Your task to perform on an android device: Open wifi settings Image 0: 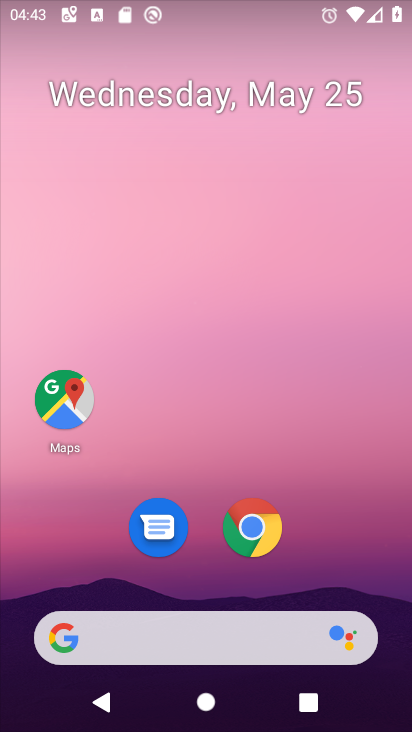
Step 0: drag from (212, 460) to (237, 3)
Your task to perform on an android device: Open wifi settings Image 1: 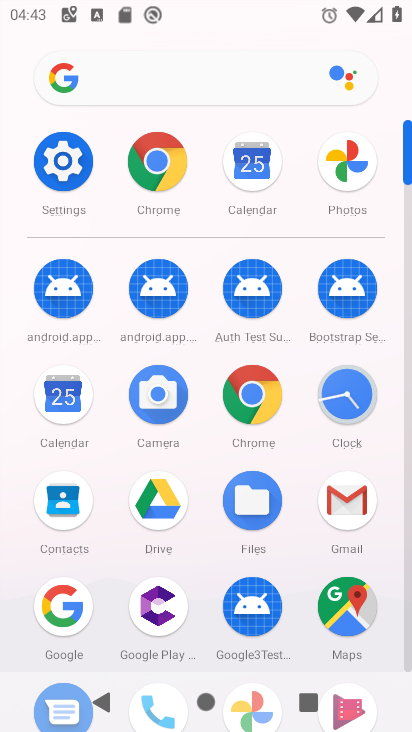
Step 1: click (76, 169)
Your task to perform on an android device: Open wifi settings Image 2: 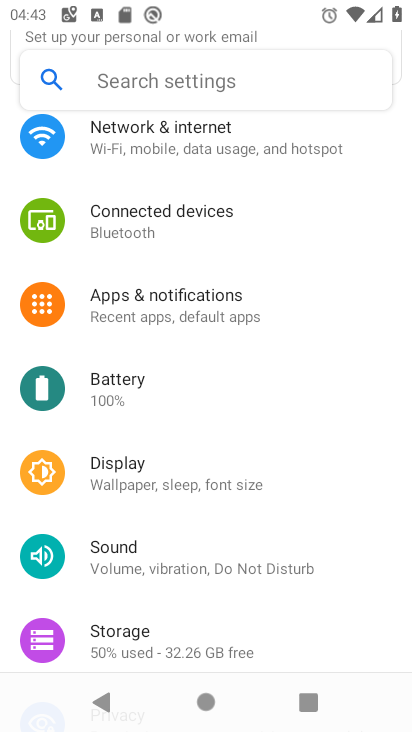
Step 2: click (199, 146)
Your task to perform on an android device: Open wifi settings Image 3: 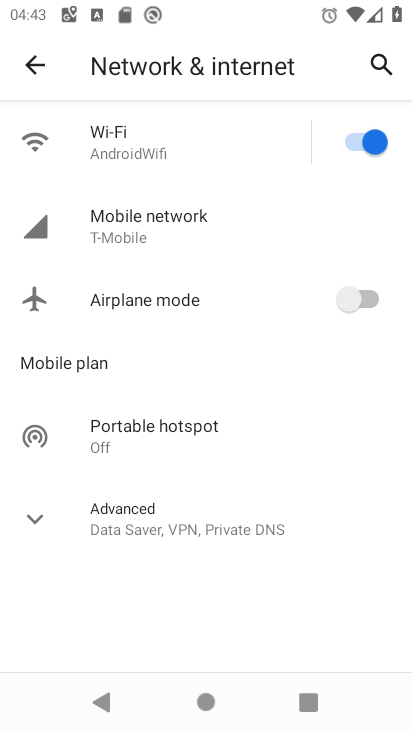
Step 3: click (47, 518)
Your task to perform on an android device: Open wifi settings Image 4: 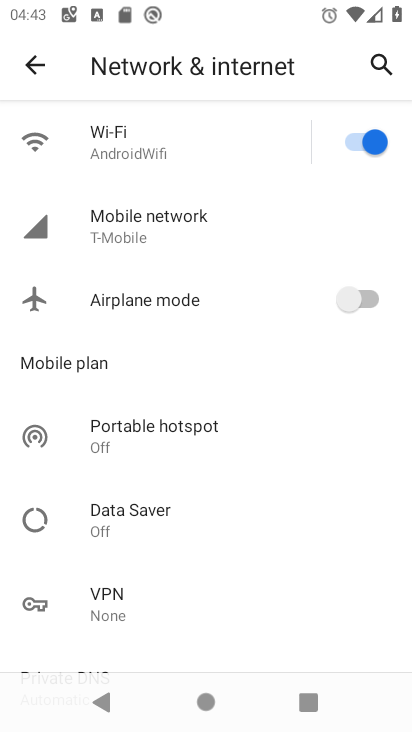
Step 4: drag from (253, 577) to (268, 314)
Your task to perform on an android device: Open wifi settings Image 5: 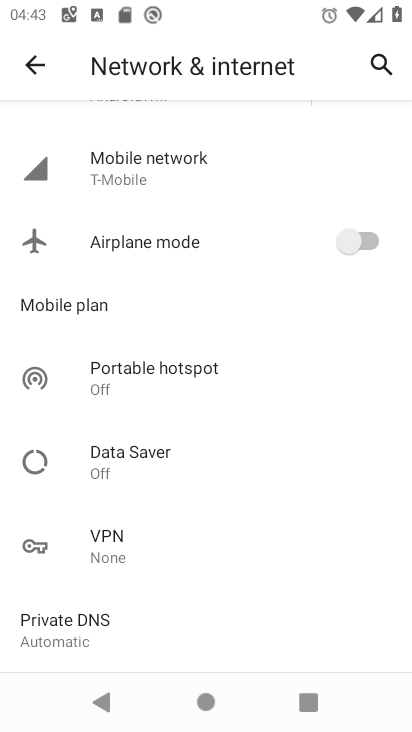
Step 5: drag from (280, 327) to (276, 535)
Your task to perform on an android device: Open wifi settings Image 6: 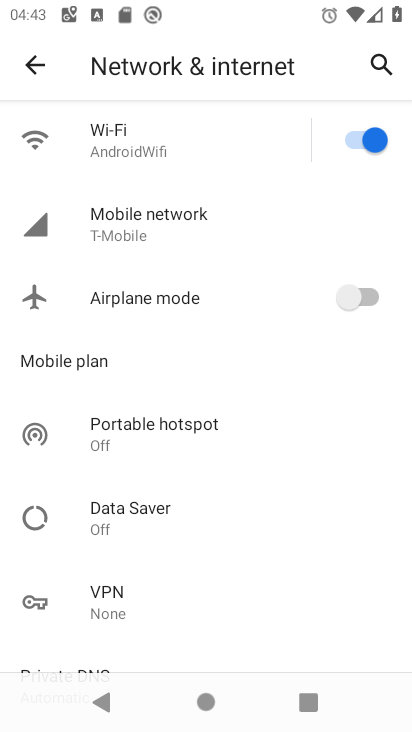
Step 6: click (102, 139)
Your task to perform on an android device: Open wifi settings Image 7: 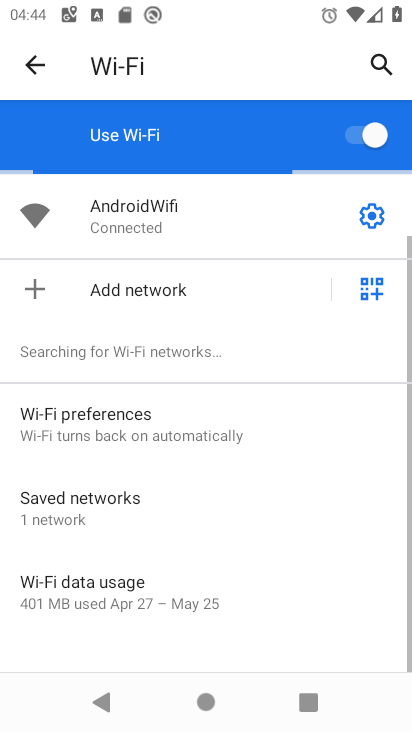
Step 7: task complete